Your task to perform on an android device: Open Maps and search for coffee Image 0: 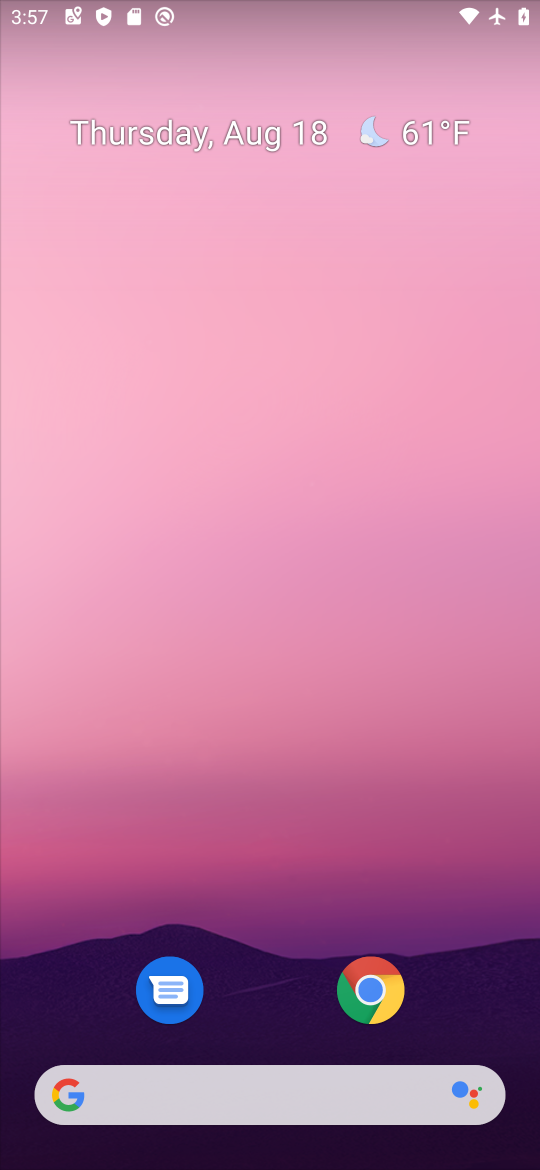
Step 0: drag from (308, 676) to (537, 61)
Your task to perform on an android device: Open Maps and search for coffee Image 1: 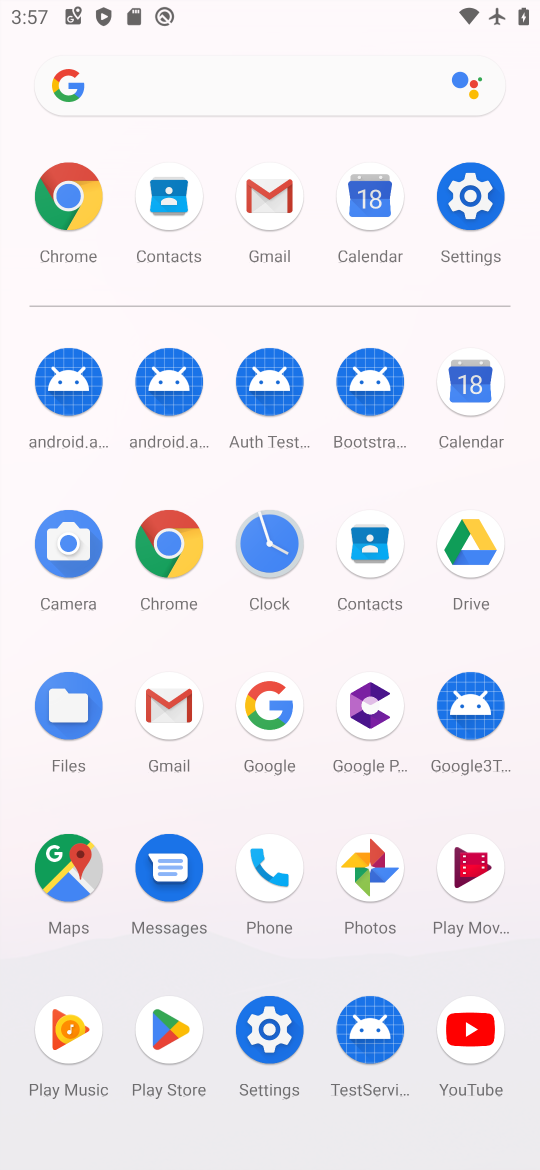
Step 1: click (60, 870)
Your task to perform on an android device: Open Maps and search for coffee Image 2: 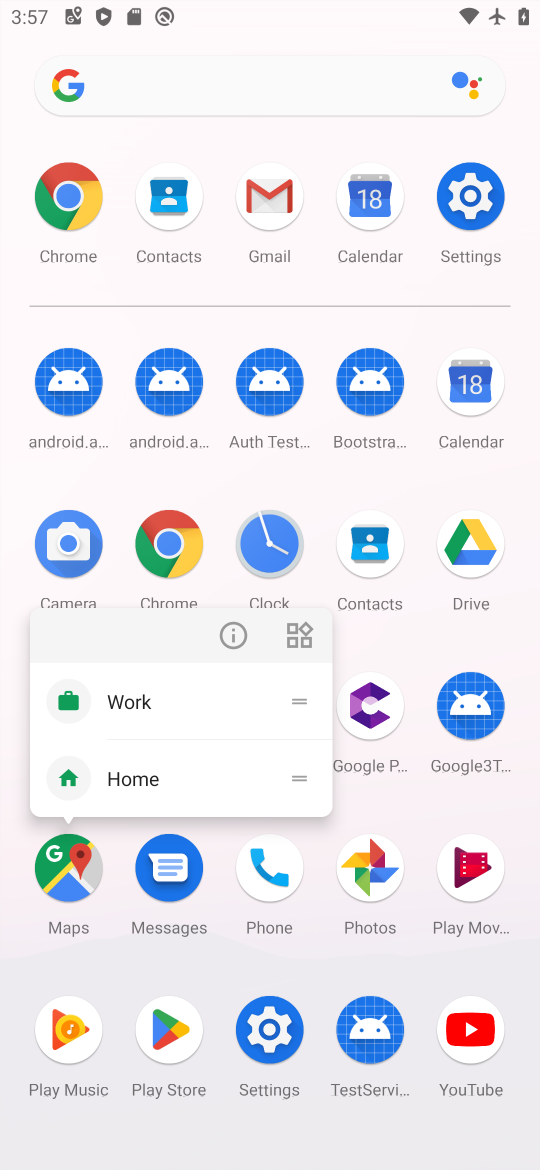
Step 2: click (73, 868)
Your task to perform on an android device: Open Maps and search for coffee Image 3: 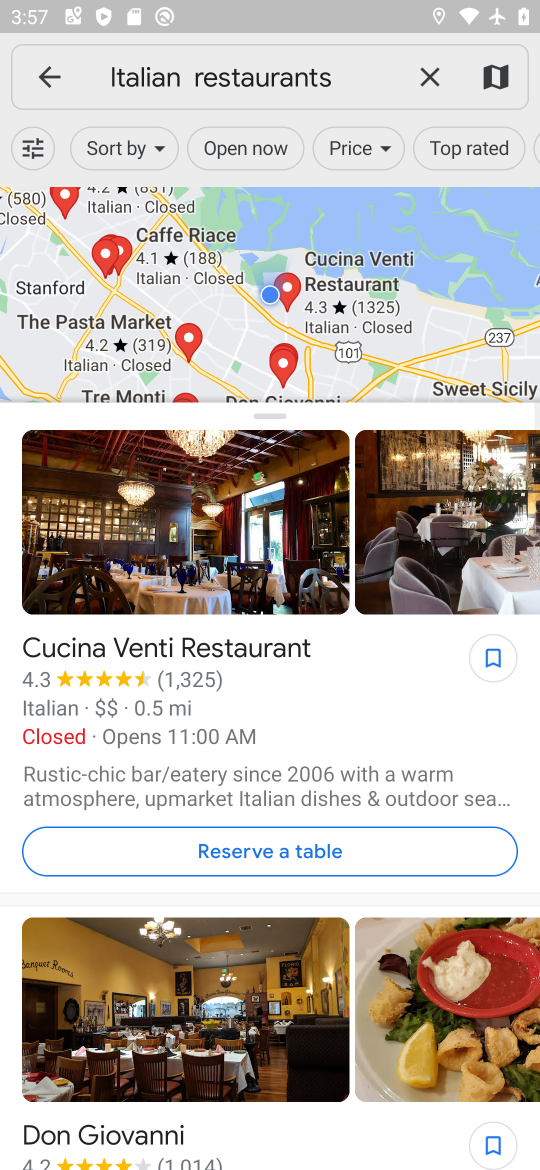
Step 3: click (336, 77)
Your task to perform on an android device: Open Maps and search for coffee Image 4: 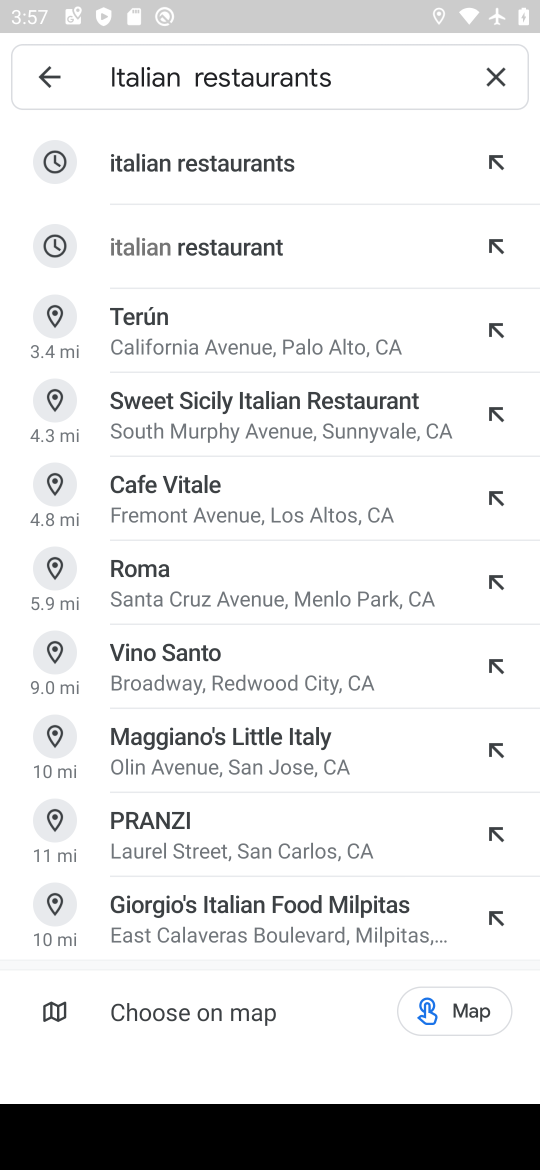
Step 4: click (494, 68)
Your task to perform on an android device: Open Maps and search for coffee Image 5: 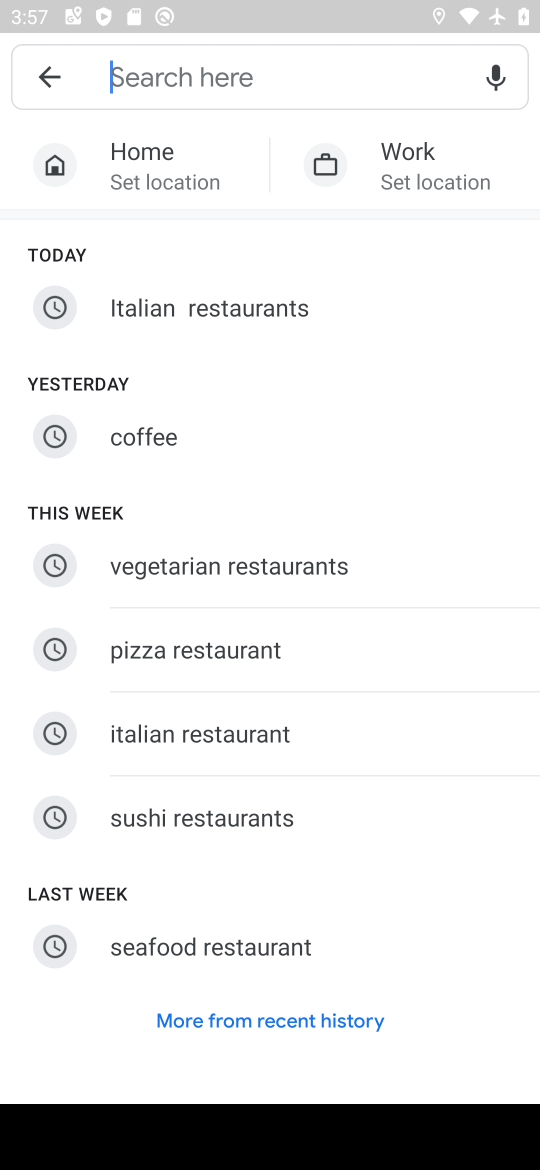
Step 5: click (158, 419)
Your task to perform on an android device: Open Maps and search for coffee Image 6: 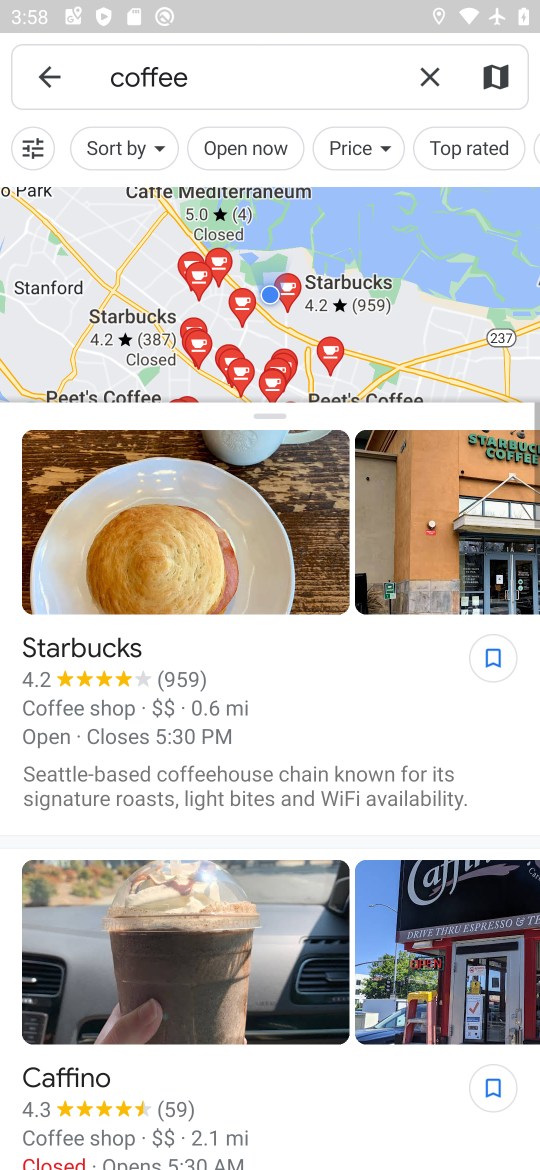
Step 6: task complete